Your task to perform on an android device: star an email in the gmail app Image 0: 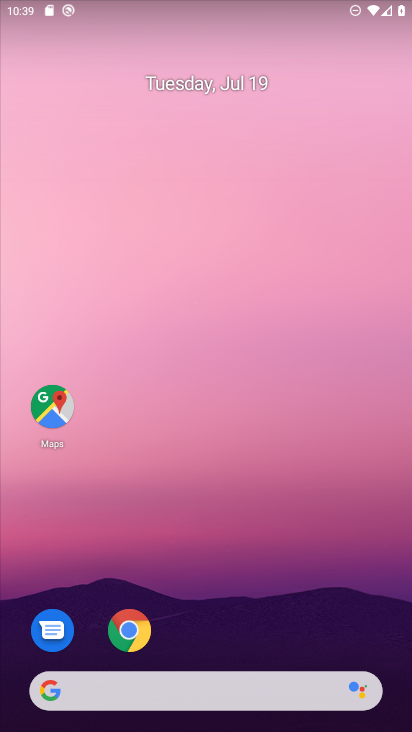
Step 0: drag from (233, 603) to (207, 145)
Your task to perform on an android device: star an email in the gmail app Image 1: 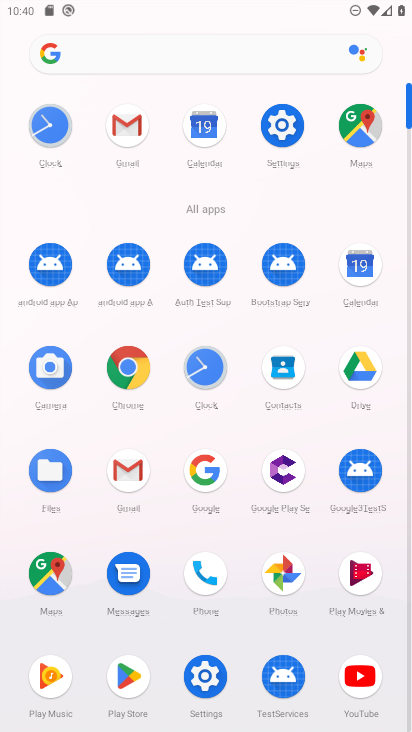
Step 1: click (130, 130)
Your task to perform on an android device: star an email in the gmail app Image 2: 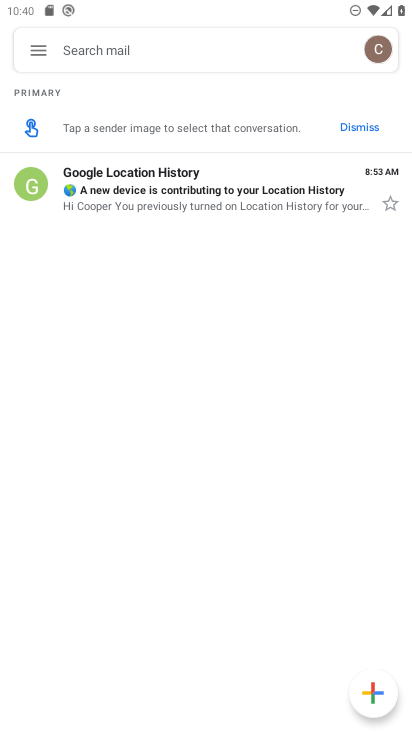
Step 2: click (388, 205)
Your task to perform on an android device: star an email in the gmail app Image 3: 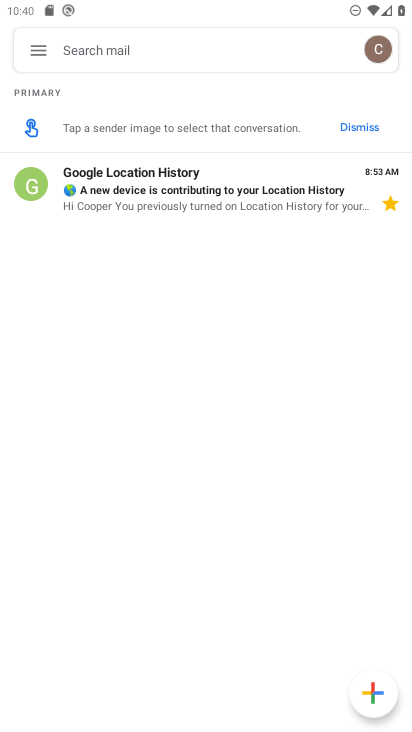
Step 3: task complete